Your task to perform on an android device: Is it going to rain today? Image 0: 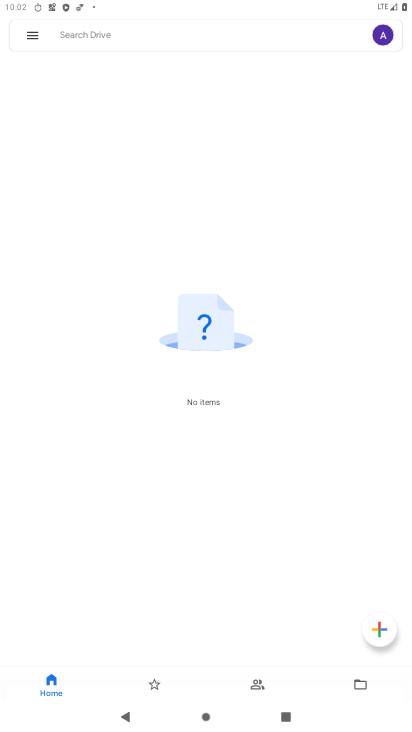
Step 0: press home button
Your task to perform on an android device: Is it going to rain today? Image 1: 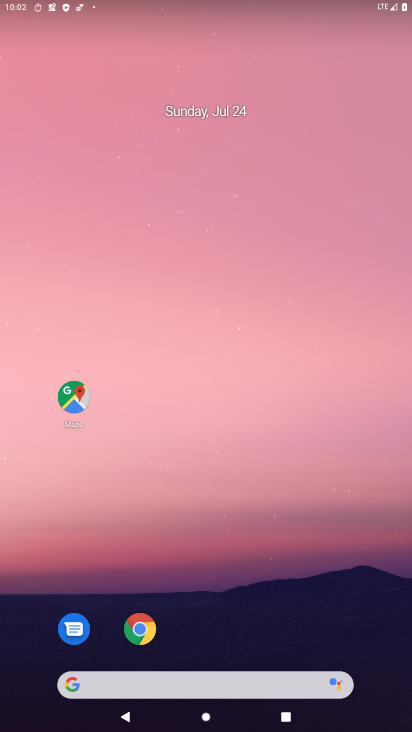
Step 1: click (72, 686)
Your task to perform on an android device: Is it going to rain today? Image 2: 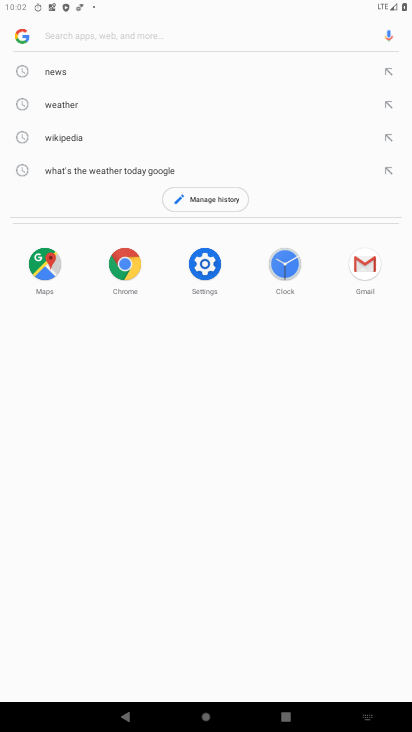
Step 2: type "Is it going to rain today?"
Your task to perform on an android device: Is it going to rain today? Image 3: 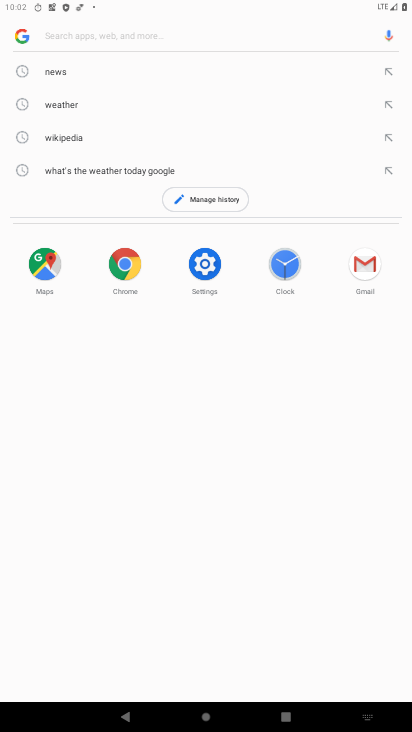
Step 3: click (53, 27)
Your task to perform on an android device: Is it going to rain today? Image 4: 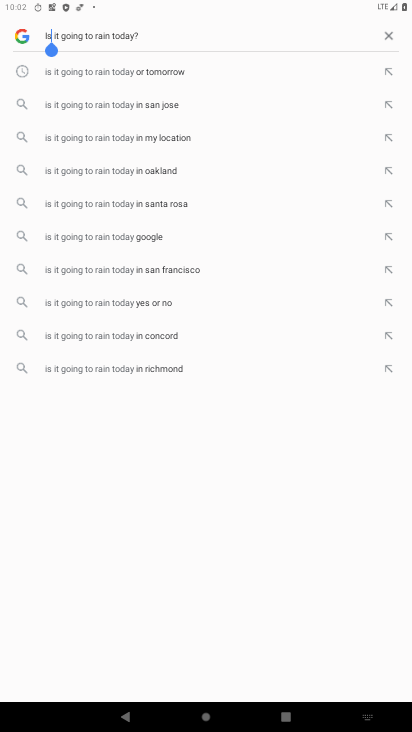
Step 4: press enter
Your task to perform on an android device: Is it going to rain today? Image 5: 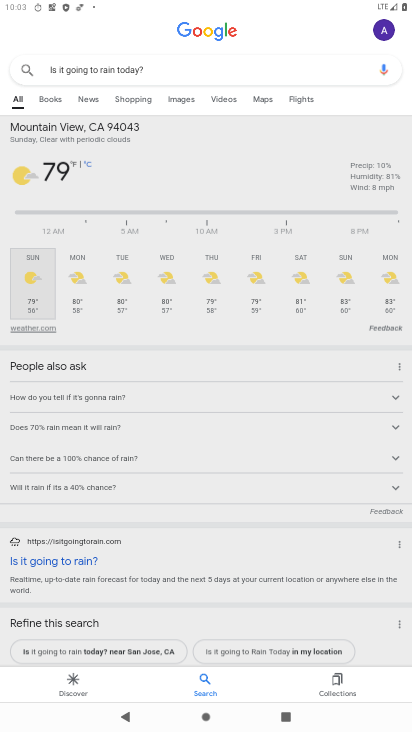
Step 5: task complete